Your task to perform on an android device: Open wifi settings Image 0: 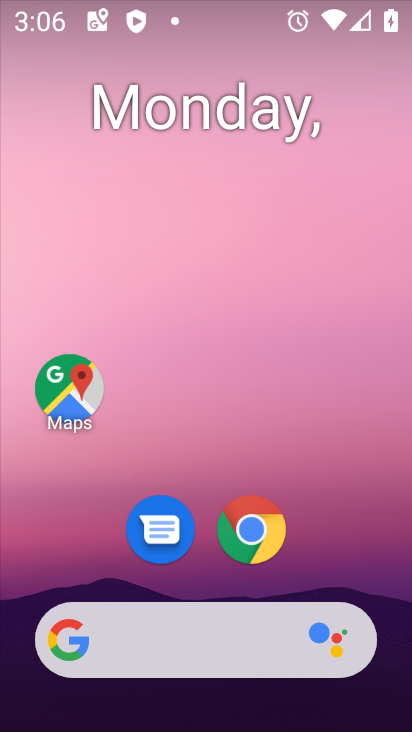
Step 0: drag from (208, 590) to (268, 124)
Your task to perform on an android device: Open wifi settings Image 1: 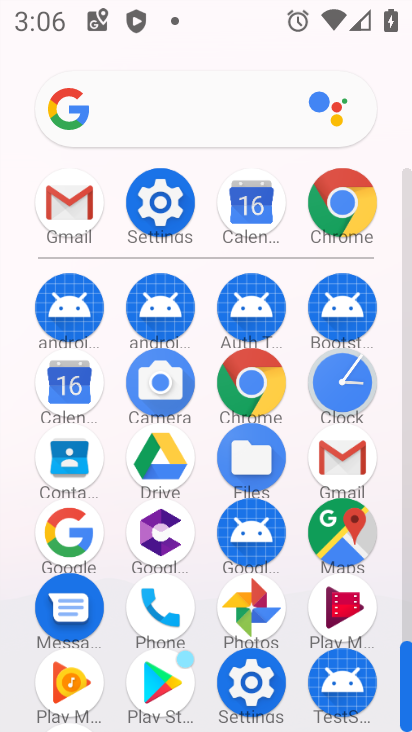
Step 1: click (239, 682)
Your task to perform on an android device: Open wifi settings Image 2: 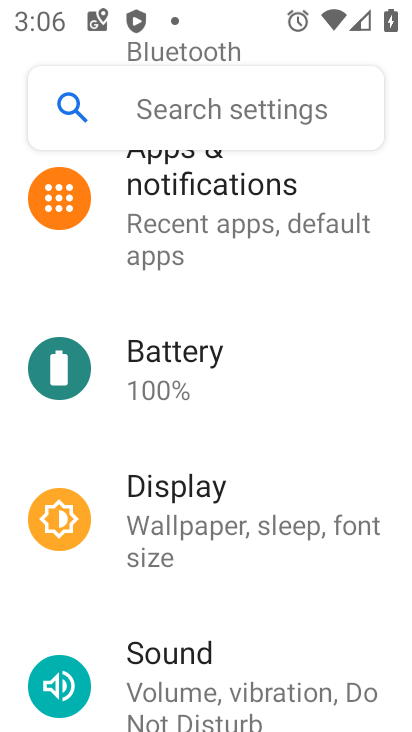
Step 2: drag from (196, 361) to (246, 479)
Your task to perform on an android device: Open wifi settings Image 3: 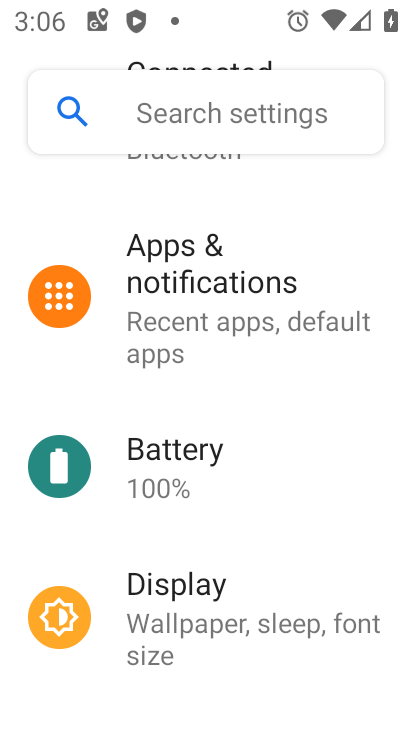
Step 3: drag from (237, 410) to (270, 523)
Your task to perform on an android device: Open wifi settings Image 4: 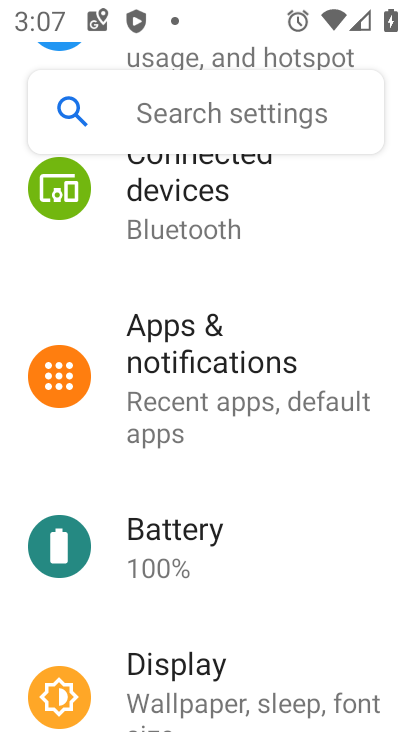
Step 4: drag from (186, 314) to (246, 547)
Your task to perform on an android device: Open wifi settings Image 5: 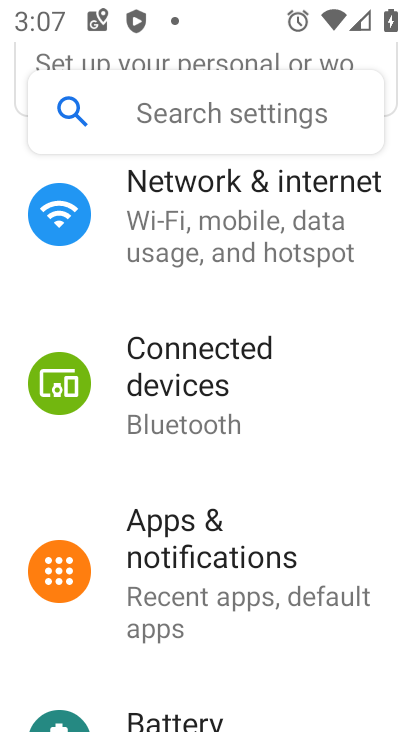
Step 5: drag from (298, 321) to (352, 520)
Your task to perform on an android device: Open wifi settings Image 6: 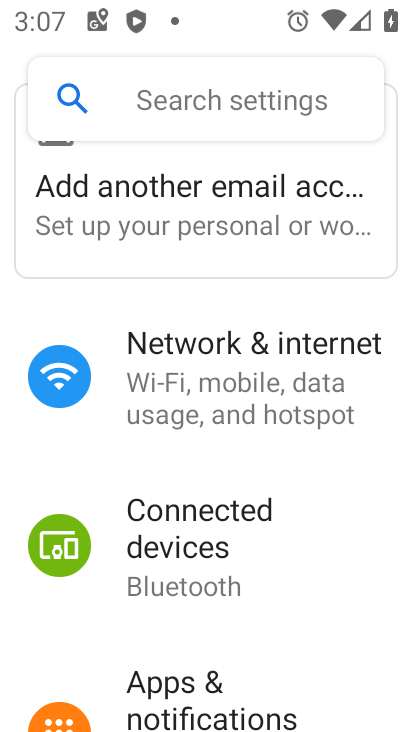
Step 6: click (280, 398)
Your task to perform on an android device: Open wifi settings Image 7: 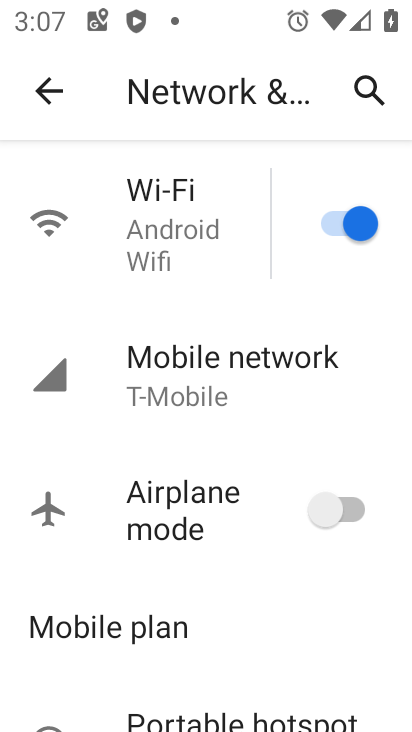
Step 7: click (167, 227)
Your task to perform on an android device: Open wifi settings Image 8: 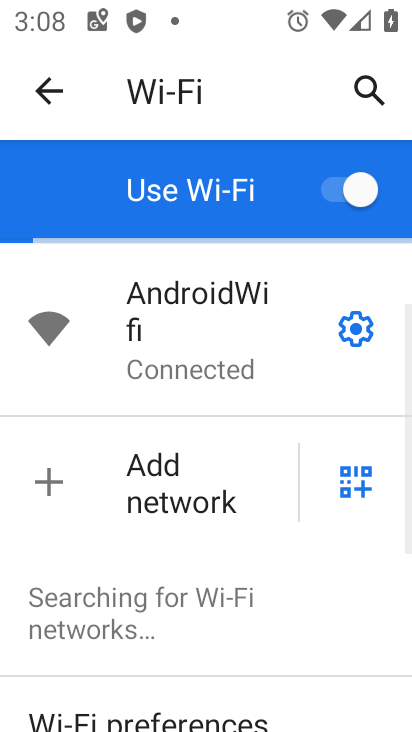
Step 8: task complete